Your task to perform on an android device: change notifications settings Image 0: 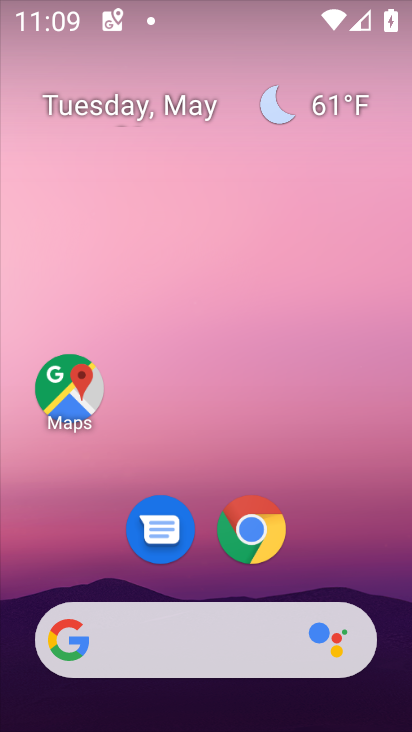
Step 0: drag from (344, 548) to (87, 71)
Your task to perform on an android device: change notifications settings Image 1: 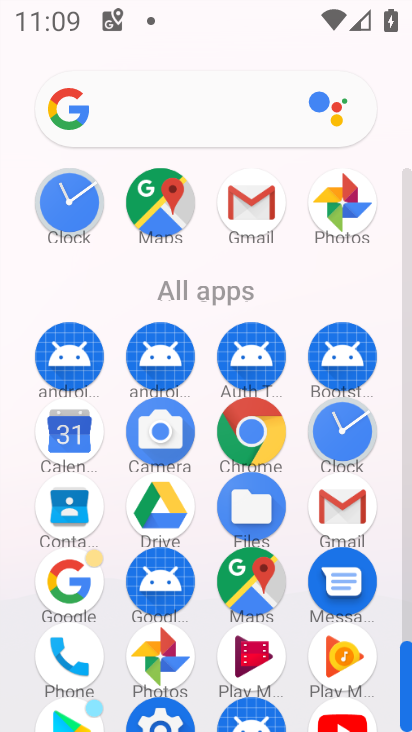
Step 1: click (160, 720)
Your task to perform on an android device: change notifications settings Image 2: 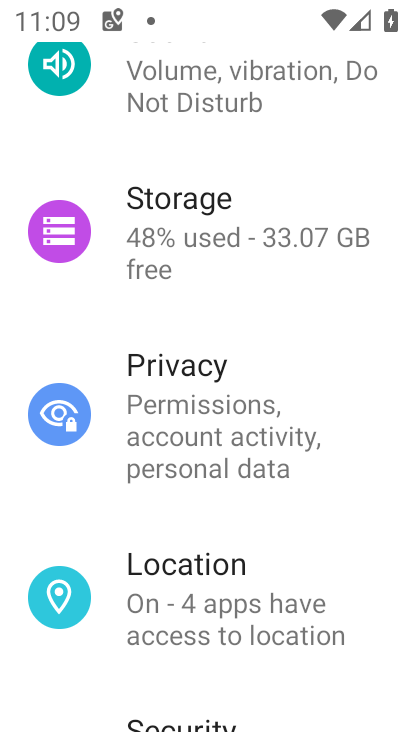
Step 2: drag from (308, 206) to (295, 588)
Your task to perform on an android device: change notifications settings Image 3: 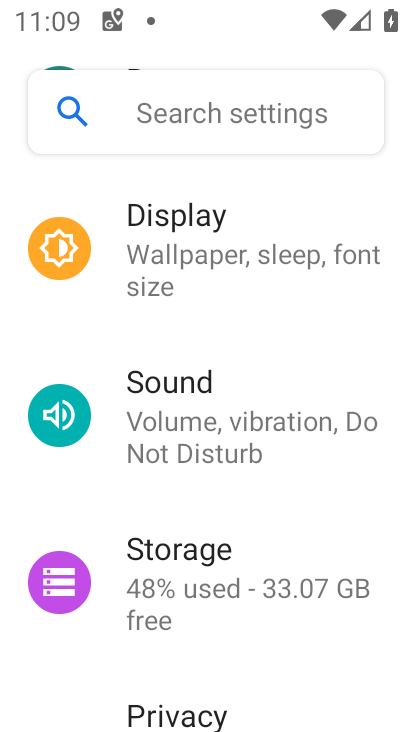
Step 3: drag from (294, 260) to (253, 585)
Your task to perform on an android device: change notifications settings Image 4: 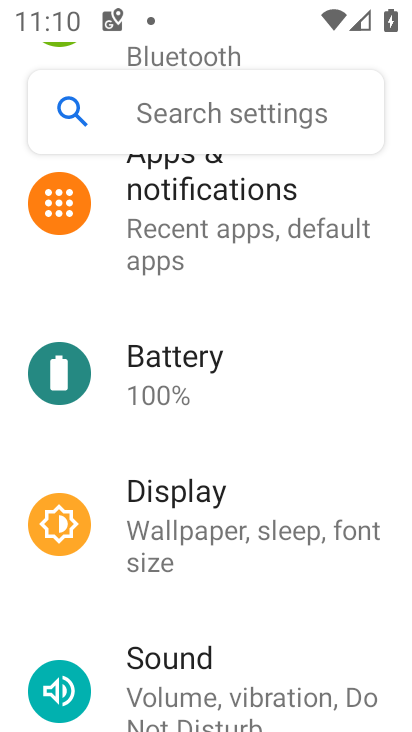
Step 4: click (216, 169)
Your task to perform on an android device: change notifications settings Image 5: 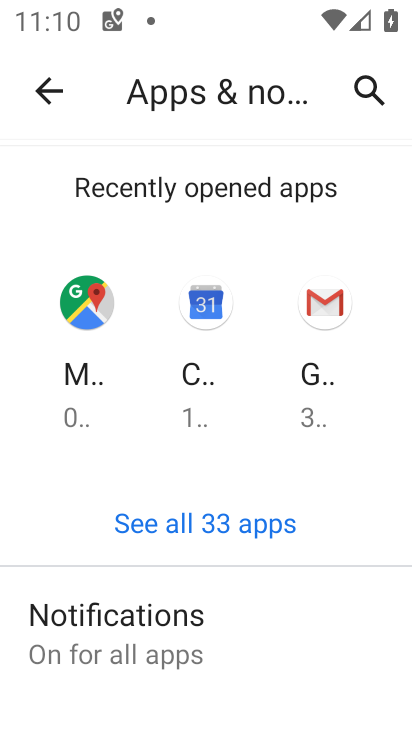
Step 5: drag from (114, 627) to (140, 300)
Your task to perform on an android device: change notifications settings Image 6: 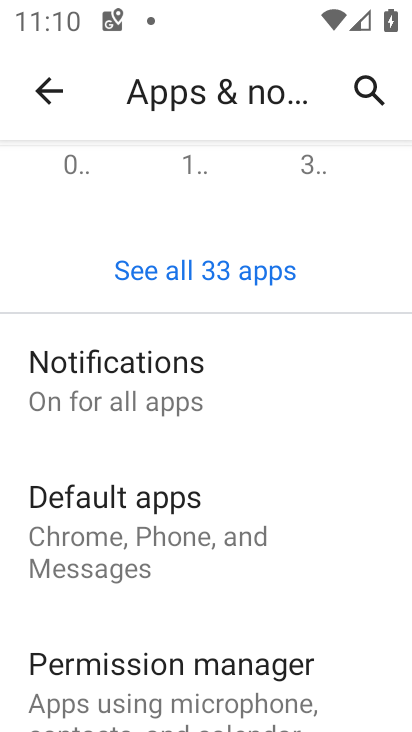
Step 6: click (117, 381)
Your task to perform on an android device: change notifications settings Image 7: 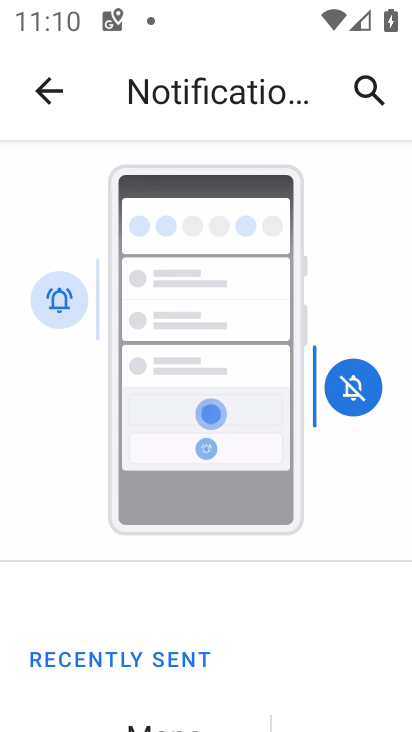
Step 7: task complete